Your task to perform on an android device: turn off notifications settings in the gmail app Image 0: 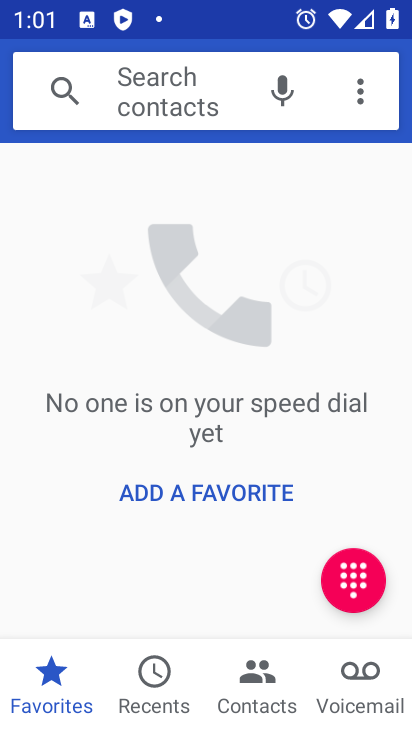
Step 0: press home button
Your task to perform on an android device: turn off notifications settings in the gmail app Image 1: 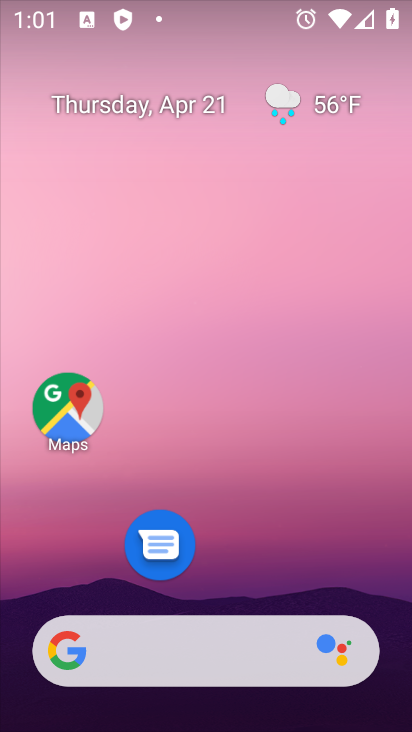
Step 1: drag from (263, 586) to (401, 100)
Your task to perform on an android device: turn off notifications settings in the gmail app Image 2: 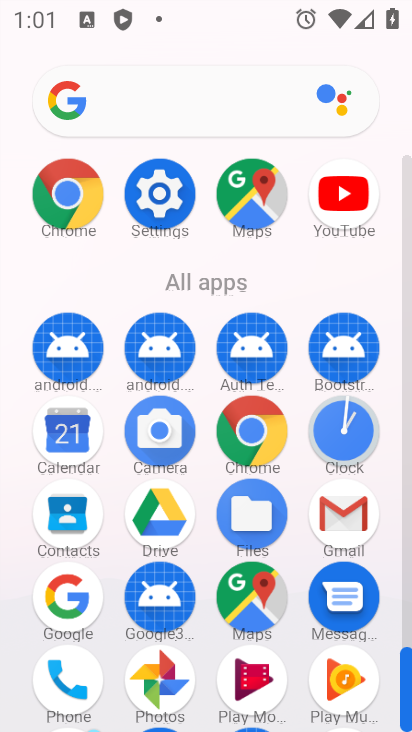
Step 2: click (343, 525)
Your task to perform on an android device: turn off notifications settings in the gmail app Image 3: 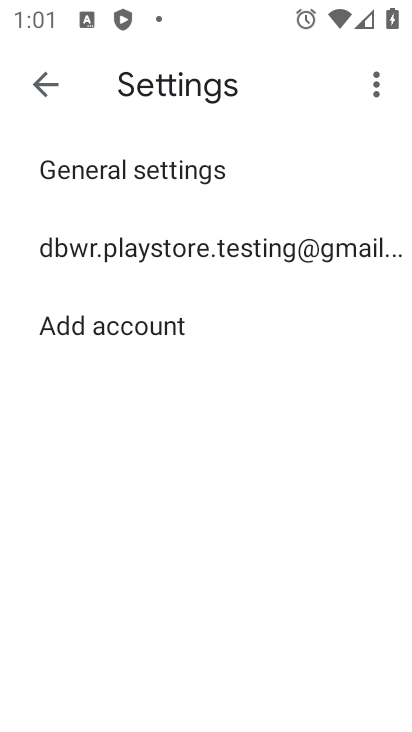
Step 3: click (258, 168)
Your task to perform on an android device: turn off notifications settings in the gmail app Image 4: 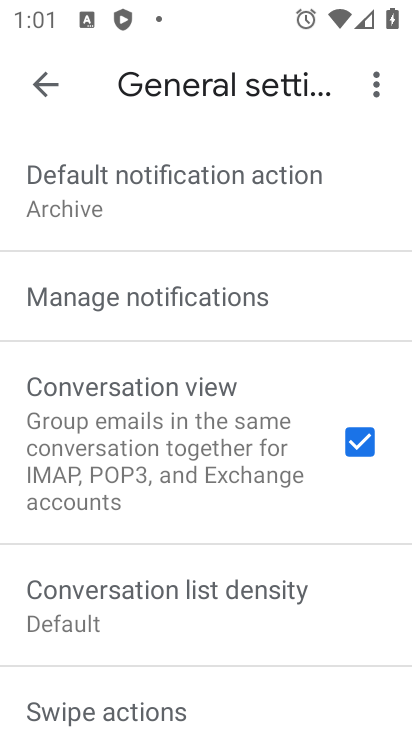
Step 4: click (242, 307)
Your task to perform on an android device: turn off notifications settings in the gmail app Image 5: 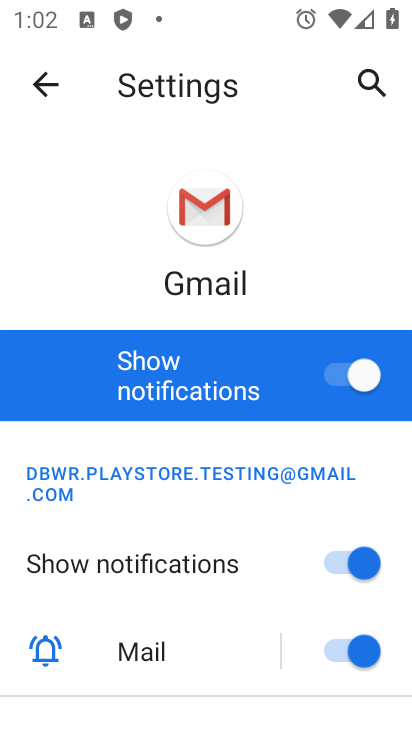
Step 5: click (324, 375)
Your task to perform on an android device: turn off notifications settings in the gmail app Image 6: 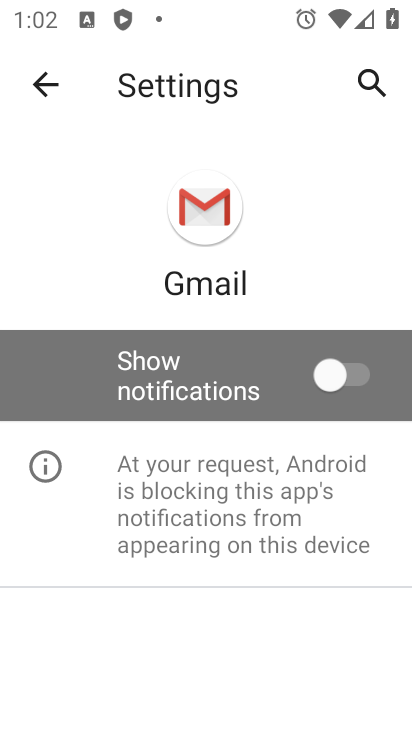
Step 6: task complete